Your task to perform on an android device: turn off data saver in the chrome app Image 0: 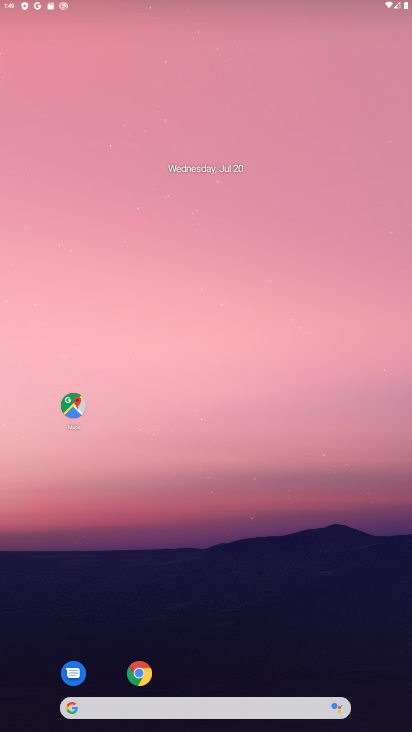
Step 0: drag from (329, 157) to (347, 39)
Your task to perform on an android device: turn off data saver in the chrome app Image 1: 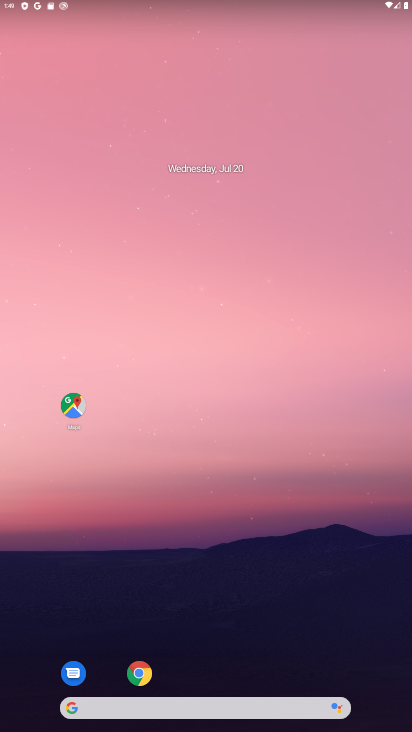
Step 1: drag from (202, 643) to (285, 93)
Your task to perform on an android device: turn off data saver in the chrome app Image 2: 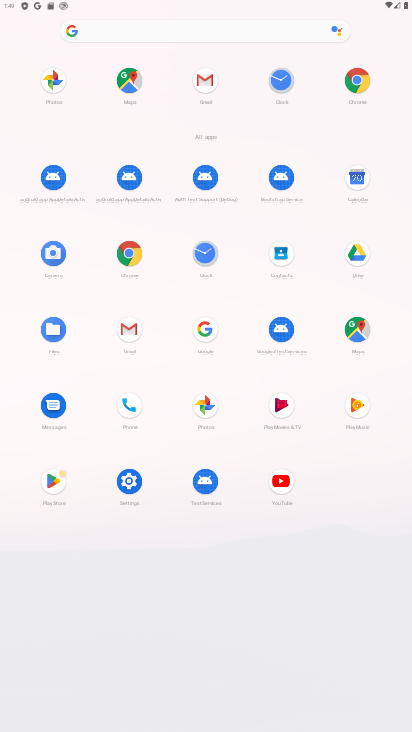
Step 2: click (126, 252)
Your task to perform on an android device: turn off data saver in the chrome app Image 3: 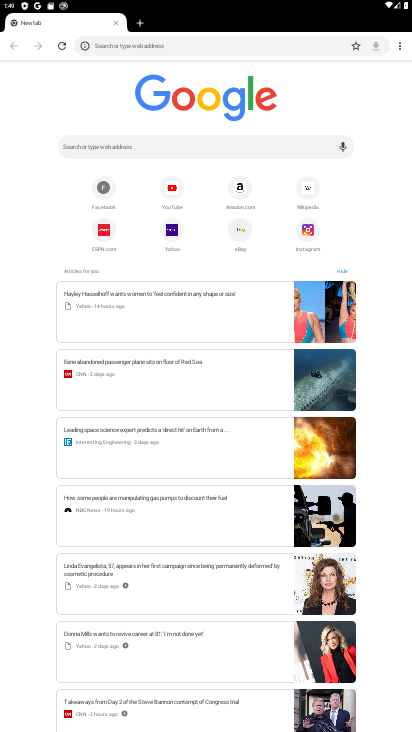
Step 3: drag from (397, 46) to (318, 214)
Your task to perform on an android device: turn off data saver in the chrome app Image 4: 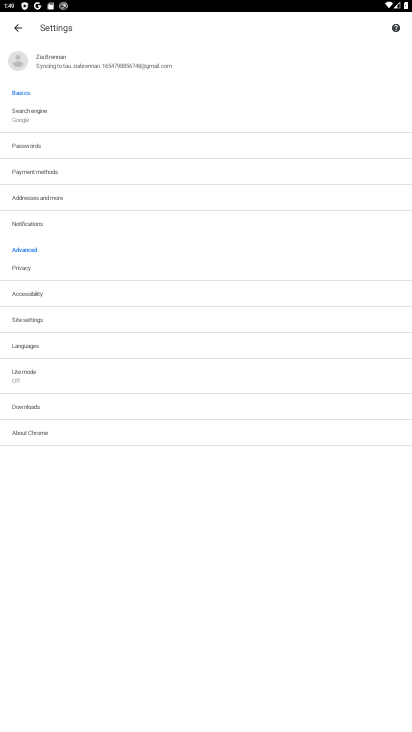
Step 4: click (29, 372)
Your task to perform on an android device: turn off data saver in the chrome app Image 5: 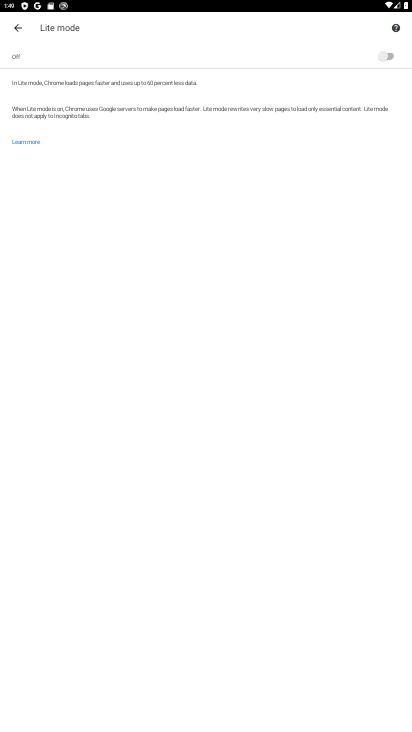
Step 5: task complete